Your task to perform on an android device: see creations saved in the google photos Image 0: 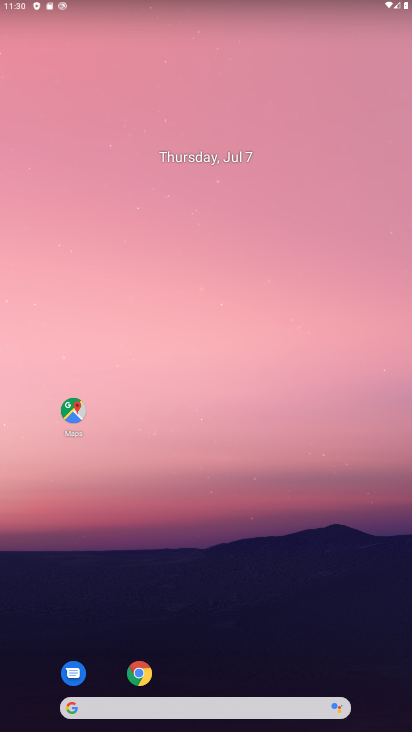
Step 0: drag from (289, 541) to (310, 28)
Your task to perform on an android device: see creations saved in the google photos Image 1: 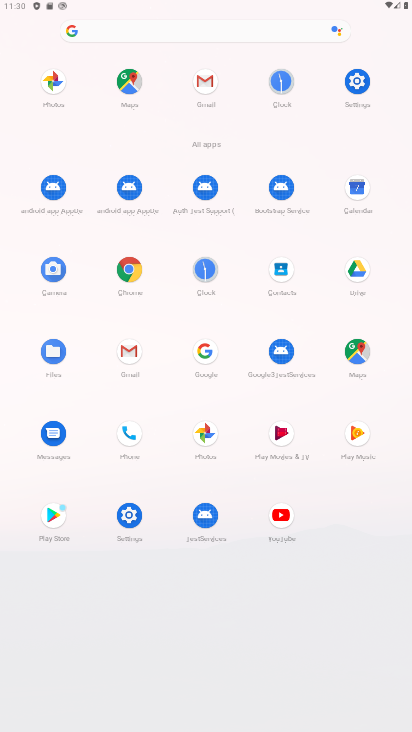
Step 1: click (127, 347)
Your task to perform on an android device: see creations saved in the google photos Image 2: 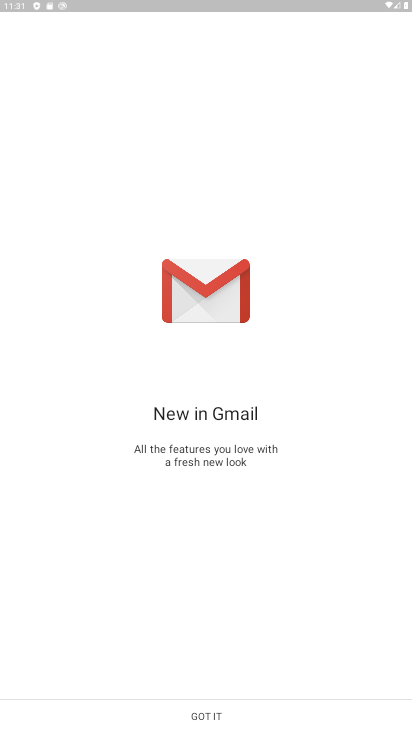
Step 2: click (192, 714)
Your task to perform on an android device: see creations saved in the google photos Image 3: 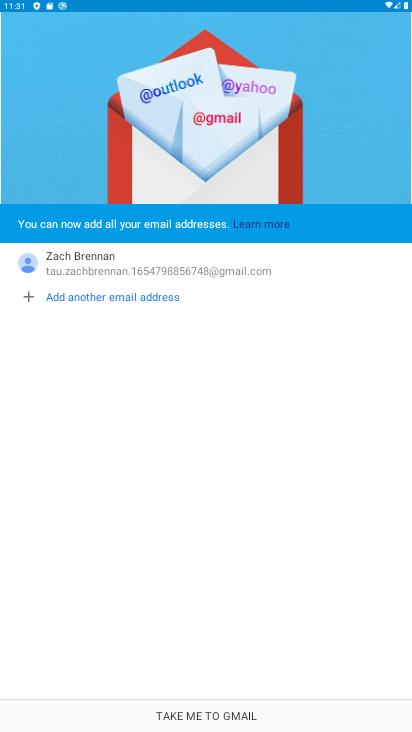
Step 3: click (206, 717)
Your task to perform on an android device: see creations saved in the google photos Image 4: 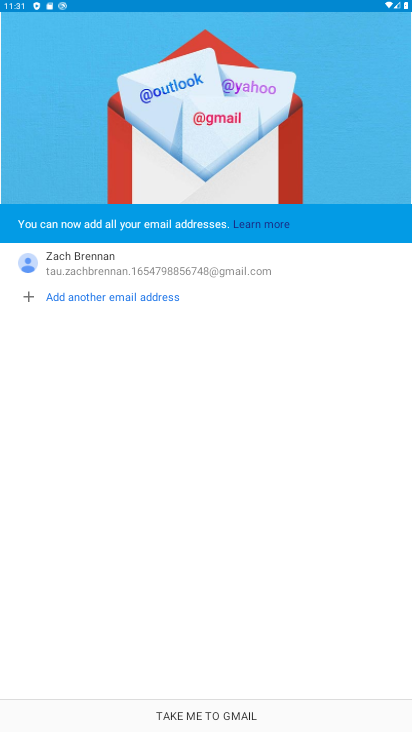
Step 4: press home button
Your task to perform on an android device: see creations saved in the google photos Image 5: 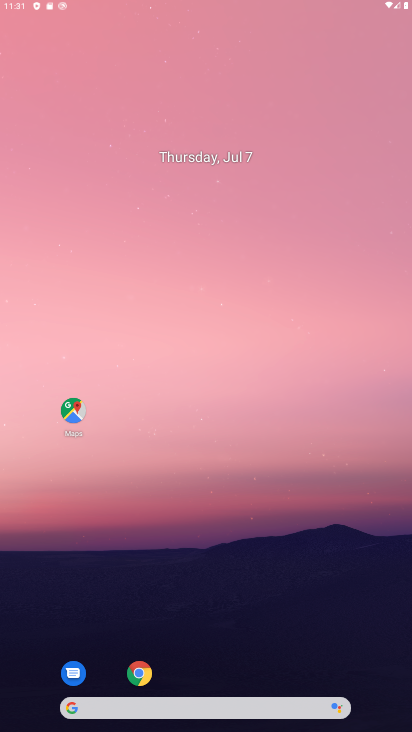
Step 5: click (218, 705)
Your task to perform on an android device: see creations saved in the google photos Image 6: 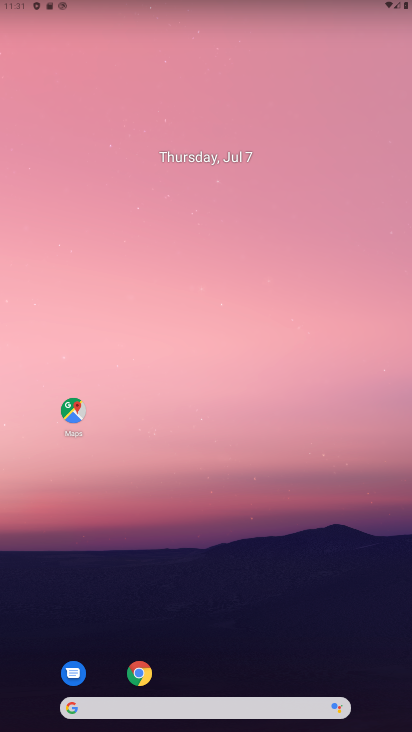
Step 6: drag from (232, 680) to (278, 320)
Your task to perform on an android device: see creations saved in the google photos Image 7: 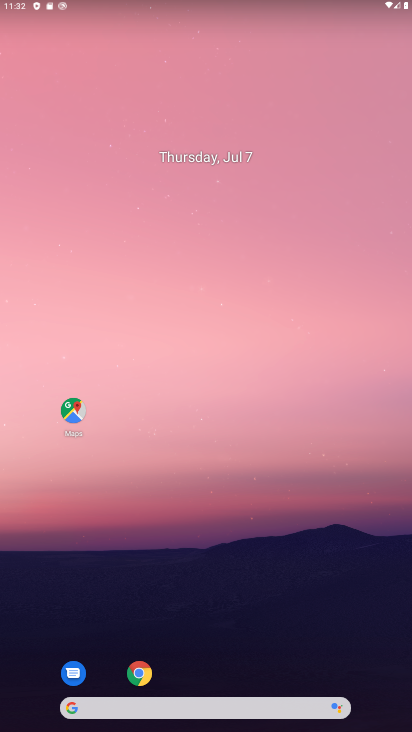
Step 7: drag from (217, 490) to (223, 18)
Your task to perform on an android device: see creations saved in the google photos Image 8: 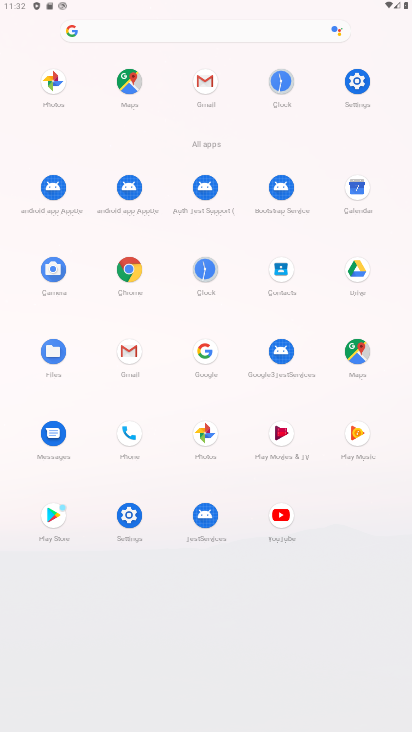
Step 8: click (125, 348)
Your task to perform on an android device: see creations saved in the google photos Image 9: 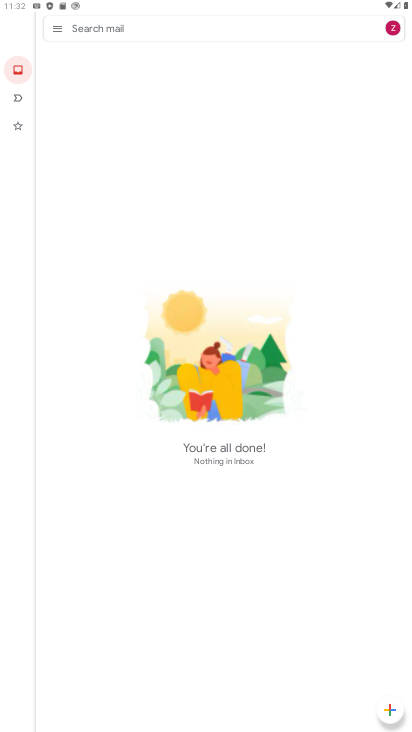
Step 9: click (49, 38)
Your task to perform on an android device: see creations saved in the google photos Image 10: 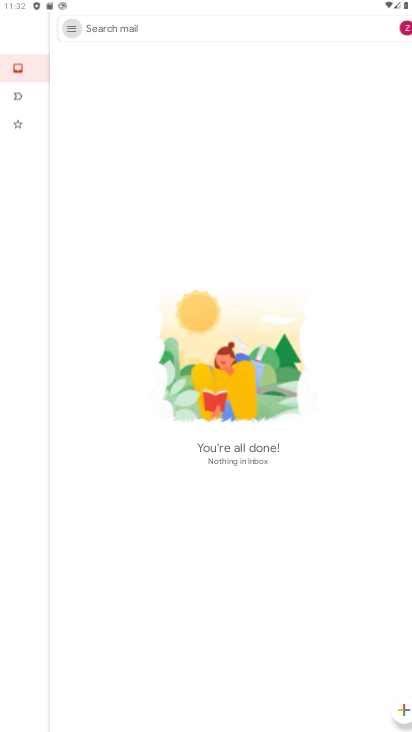
Step 10: click (55, 30)
Your task to perform on an android device: see creations saved in the google photos Image 11: 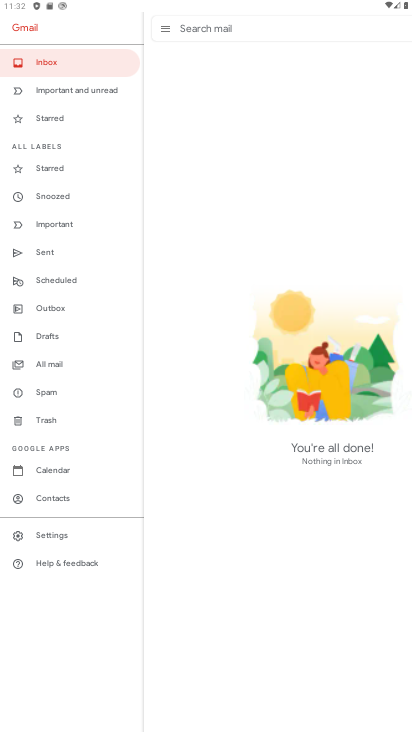
Step 11: task complete